Your task to perform on an android device: open a new tab in the chrome app Image 0: 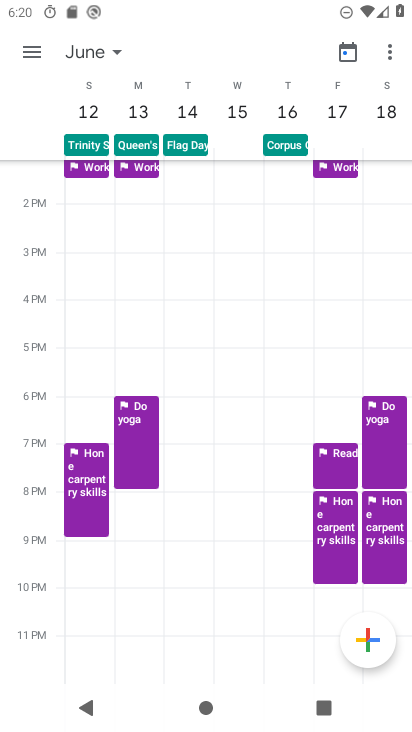
Step 0: press home button
Your task to perform on an android device: open a new tab in the chrome app Image 1: 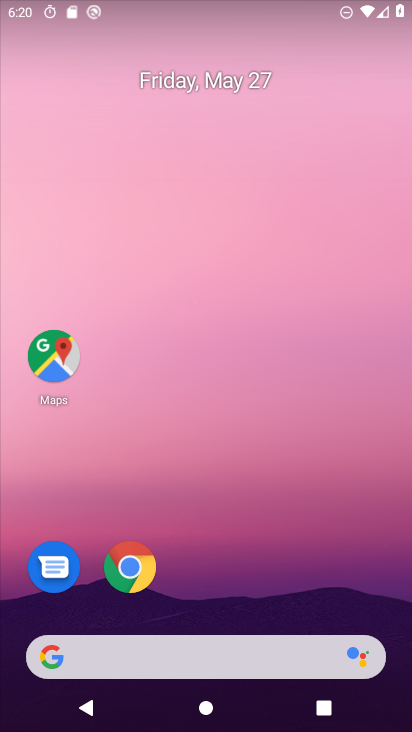
Step 1: click (118, 582)
Your task to perform on an android device: open a new tab in the chrome app Image 2: 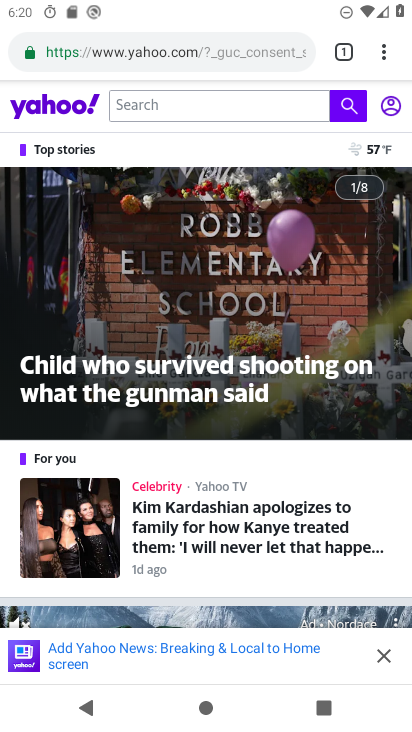
Step 2: click (343, 55)
Your task to perform on an android device: open a new tab in the chrome app Image 3: 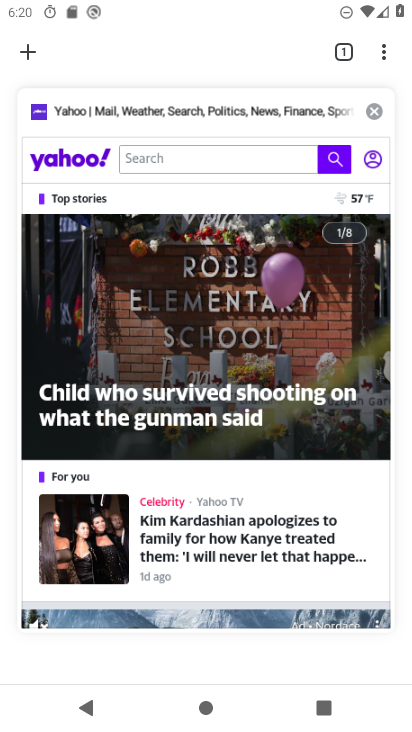
Step 3: click (28, 54)
Your task to perform on an android device: open a new tab in the chrome app Image 4: 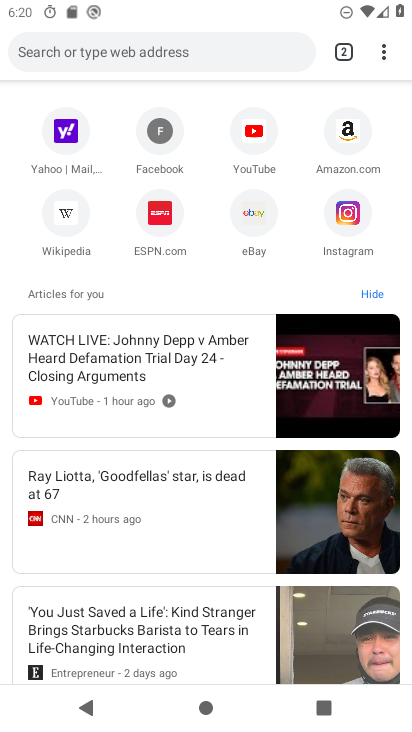
Step 4: task complete